Your task to perform on an android device: Show the shopping cart on target. Add corsair k70 to the cart on target Image 0: 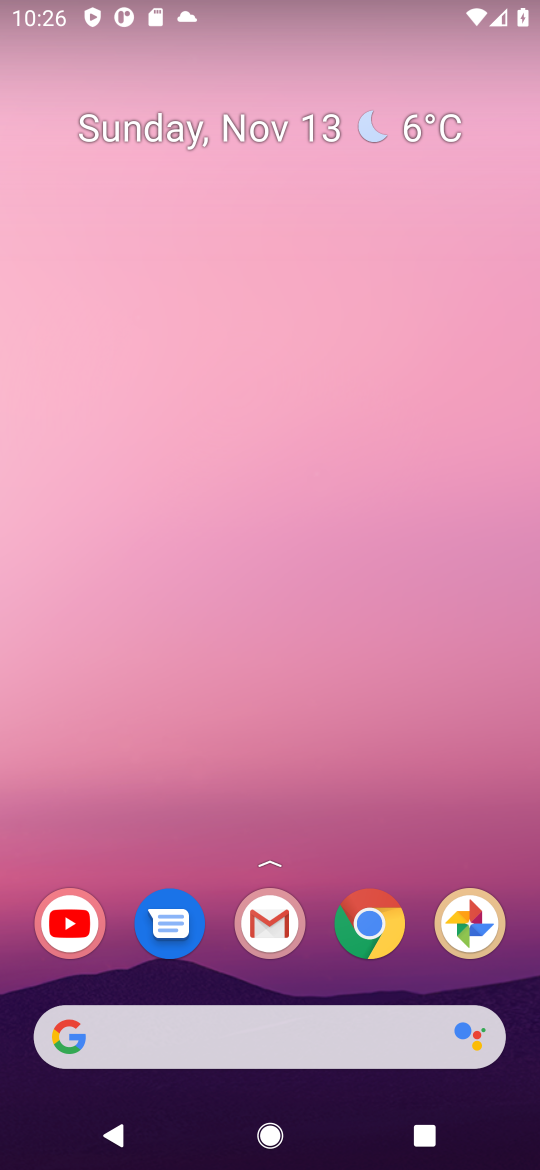
Step 0: click (382, 926)
Your task to perform on an android device: Show the shopping cart on target. Add corsair k70 to the cart on target Image 1: 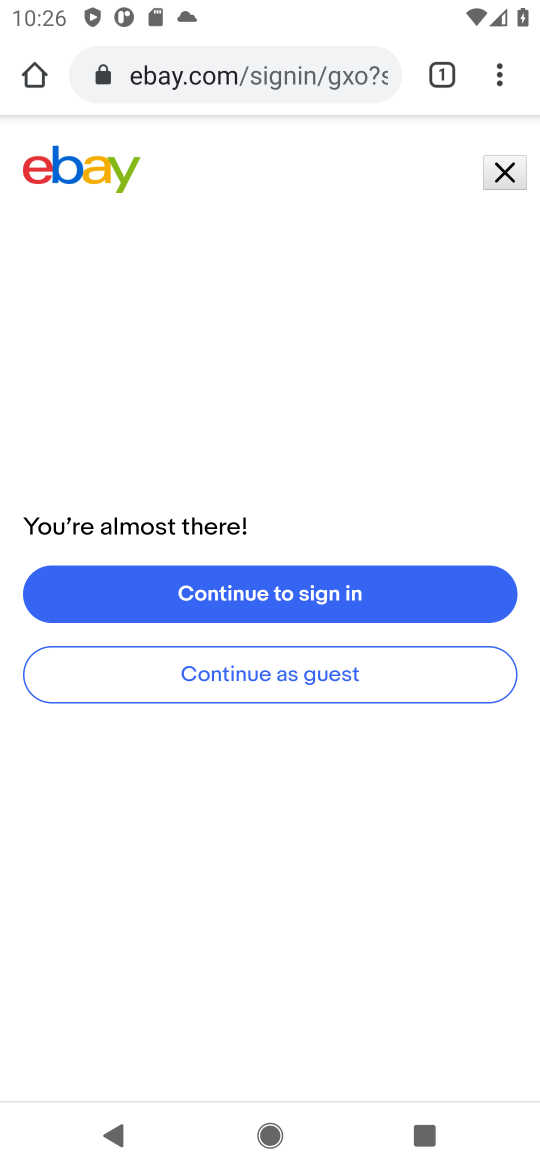
Step 1: click (243, 74)
Your task to perform on an android device: Show the shopping cart on target. Add corsair k70 to the cart on target Image 2: 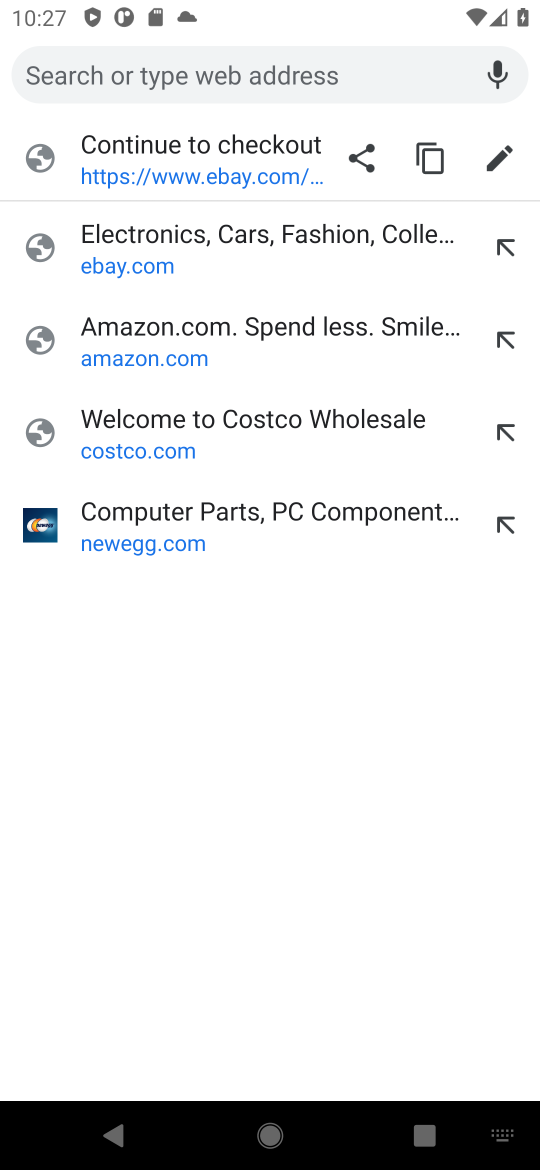
Step 2: type "target"
Your task to perform on an android device: Show the shopping cart on target. Add corsair k70 to the cart on target Image 3: 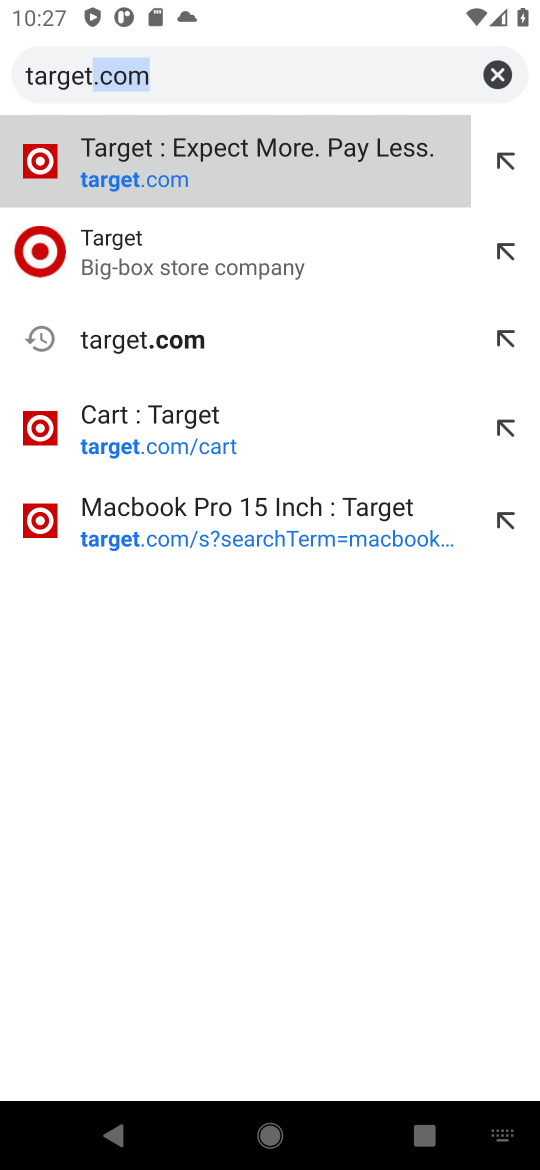
Step 3: press enter
Your task to perform on an android device: Show the shopping cart on target. Add corsair k70 to the cart on target Image 4: 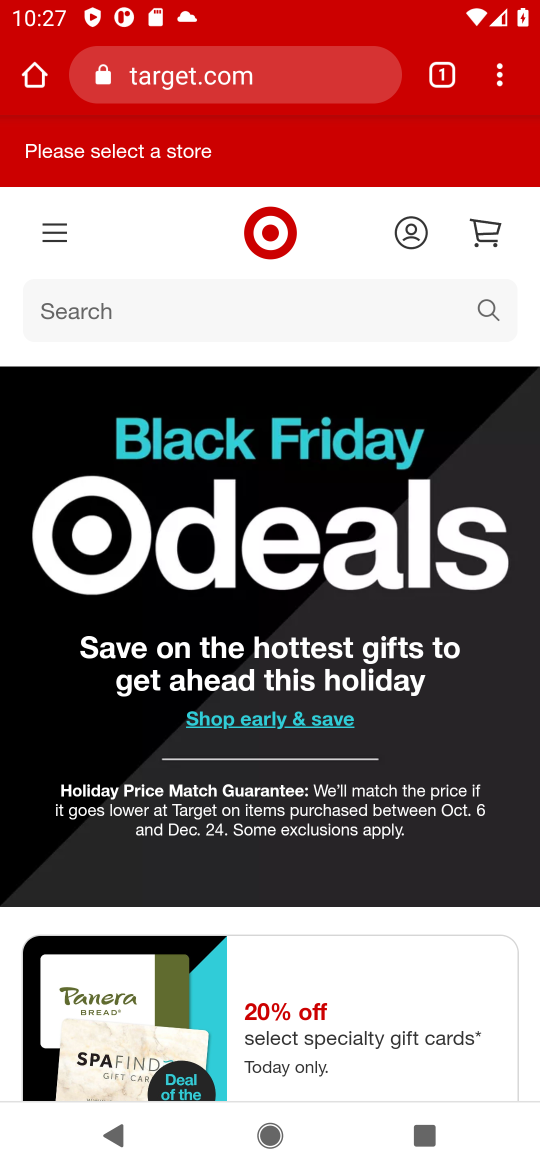
Step 4: click (485, 310)
Your task to perform on an android device: Show the shopping cart on target. Add corsair k70 to the cart on target Image 5: 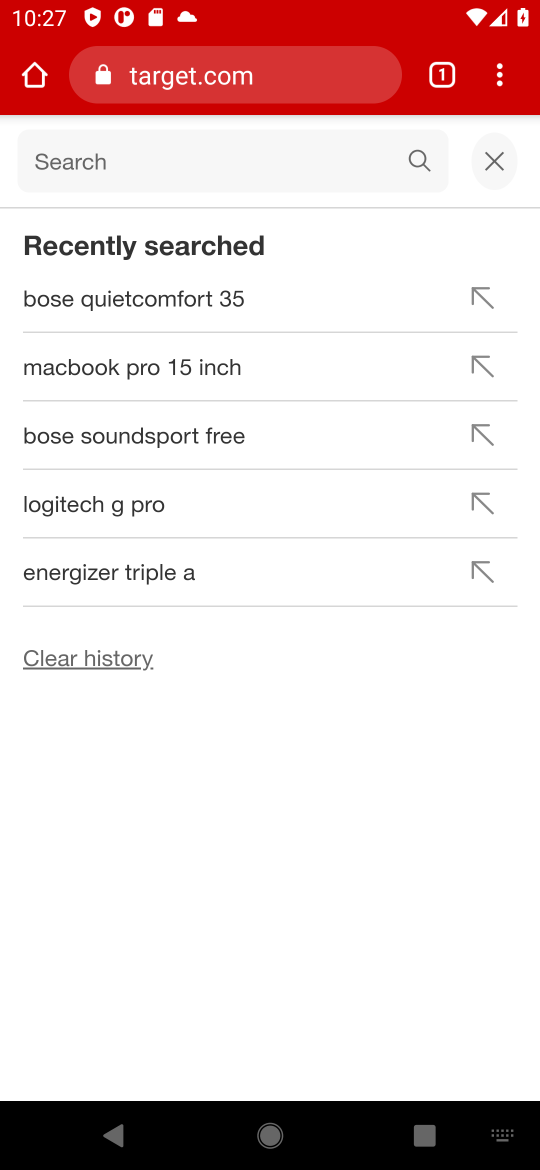
Step 5: type "corsair k70 "
Your task to perform on an android device: Show the shopping cart on target. Add corsair k70 to the cart on target Image 6: 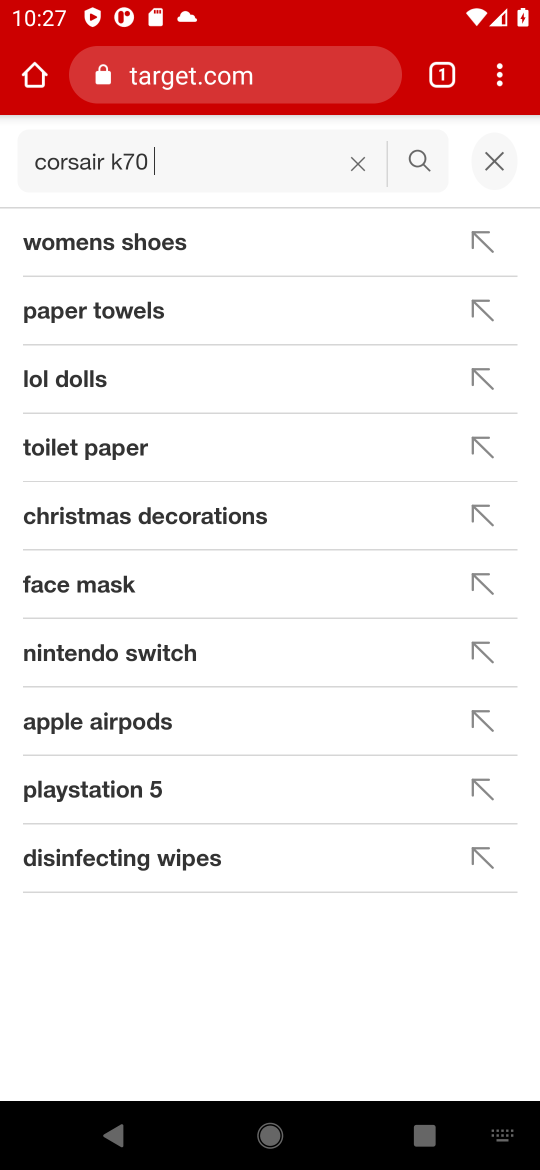
Step 6: press enter
Your task to perform on an android device: Show the shopping cart on target. Add corsair k70 to the cart on target Image 7: 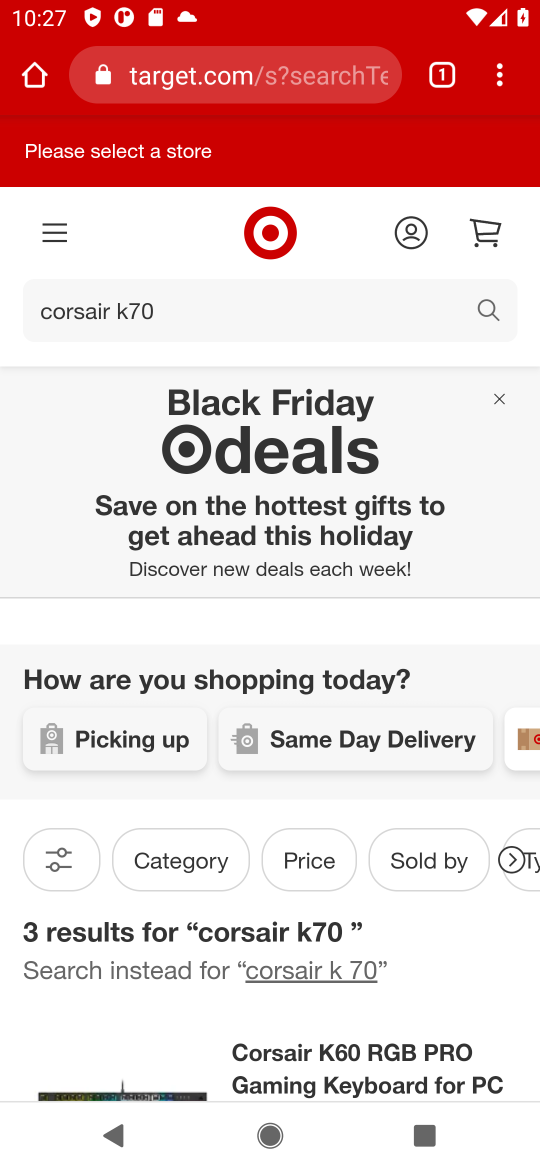
Step 7: task complete